Your task to perform on an android device: Empty the shopping cart on amazon. Search for "dell alienware" on amazon, select the first entry, add it to the cart, then select checkout. Image 0: 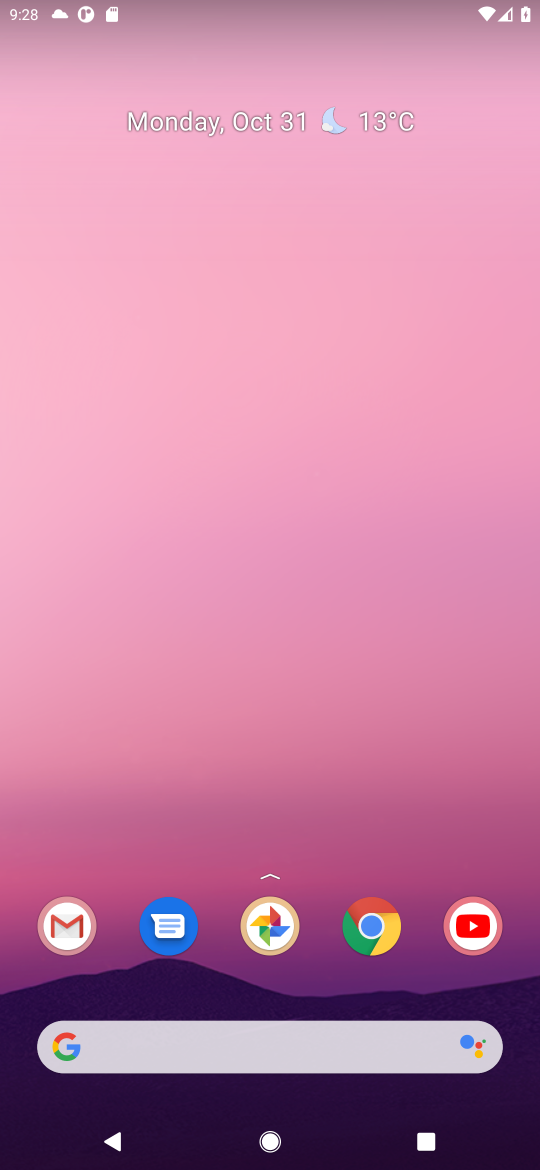
Step 0: click (377, 944)
Your task to perform on an android device: Empty the shopping cart on amazon. Search for "dell alienware" on amazon, select the first entry, add it to the cart, then select checkout. Image 1: 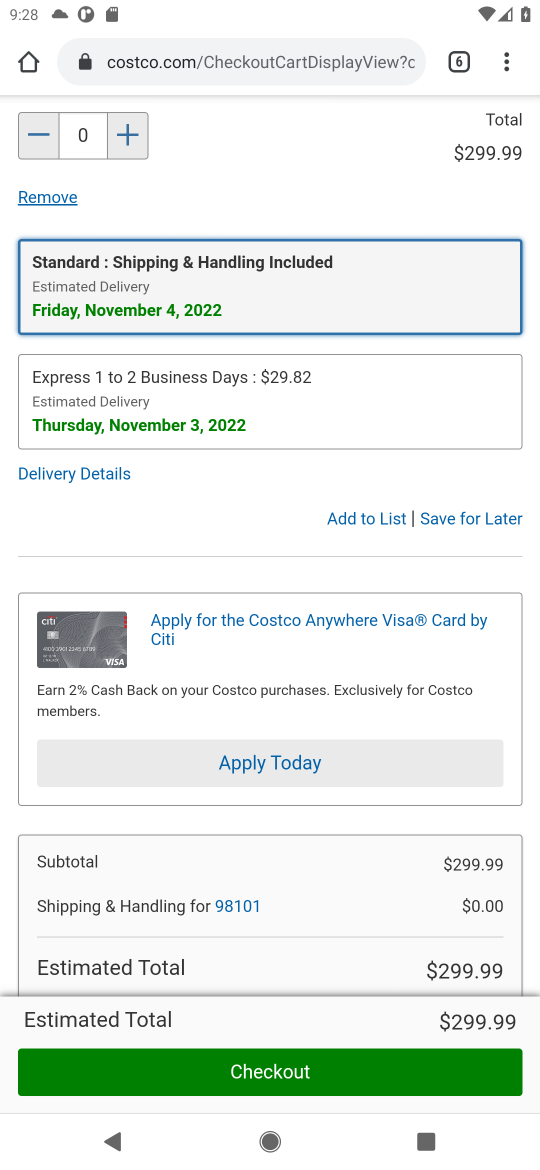
Step 1: click (462, 63)
Your task to perform on an android device: Empty the shopping cart on amazon. Search for "dell alienware" on amazon, select the first entry, add it to the cart, then select checkout. Image 2: 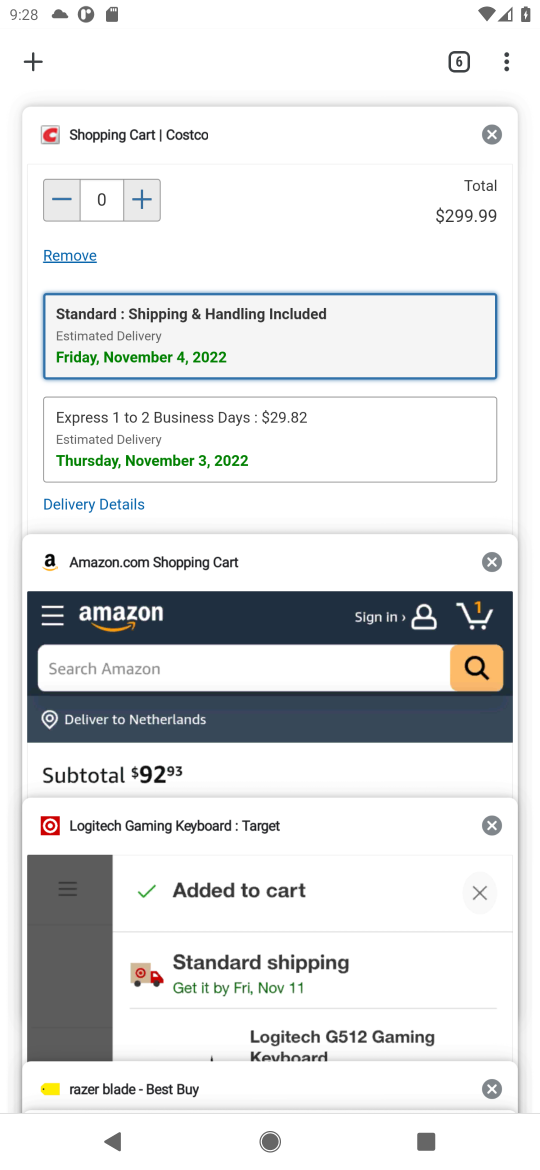
Step 2: click (189, 600)
Your task to perform on an android device: Empty the shopping cart on amazon. Search for "dell alienware" on amazon, select the first entry, add it to the cart, then select checkout. Image 3: 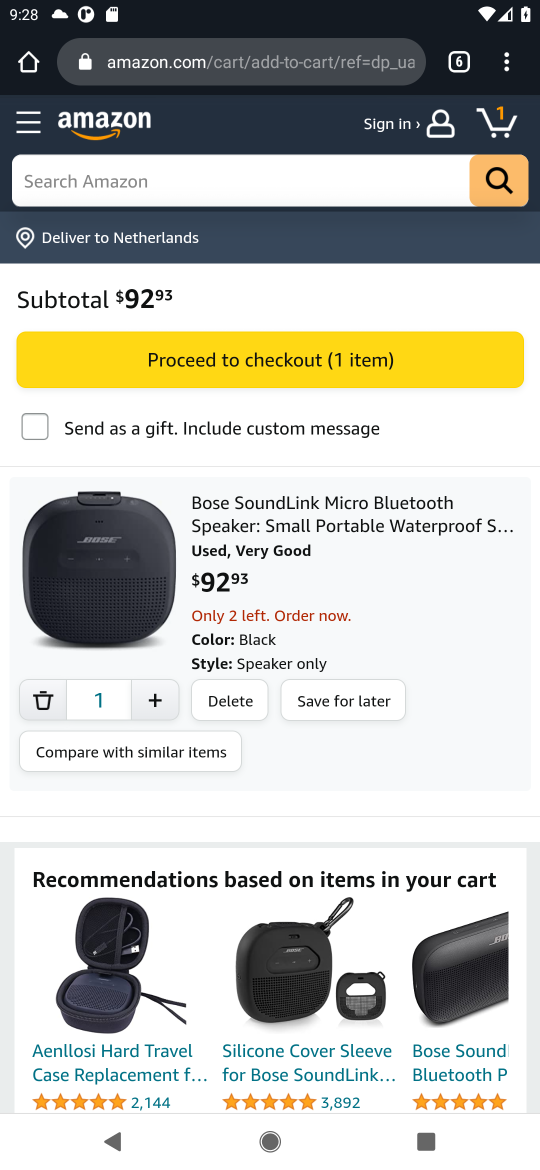
Step 3: click (498, 117)
Your task to perform on an android device: Empty the shopping cart on amazon. Search for "dell alienware" on amazon, select the first entry, add it to the cart, then select checkout. Image 4: 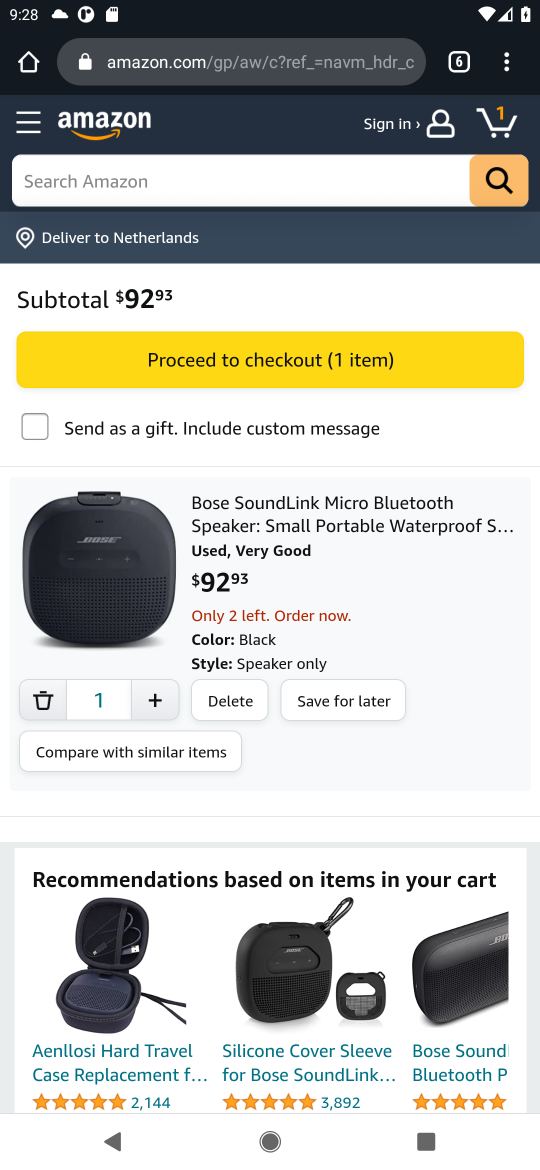
Step 4: click (498, 117)
Your task to perform on an android device: Empty the shopping cart on amazon. Search for "dell alienware" on amazon, select the first entry, add it to the cart, then select checkout. Image 5: 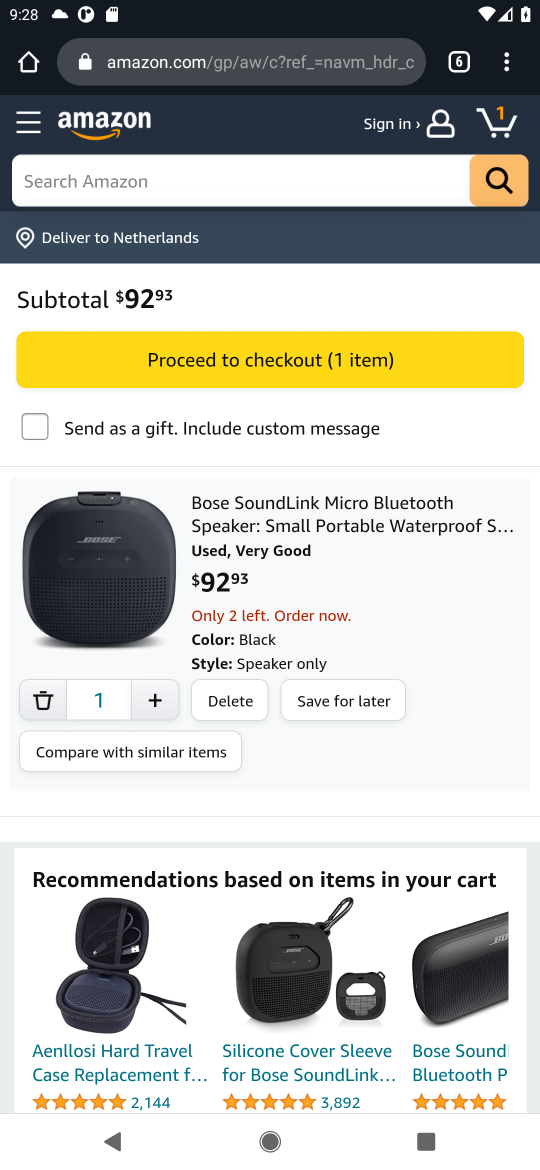
Step 5: click (40, 702)
Your task to perform on an android device: Empty the shopping cart on amazon. Search for "dell alienware" on amazon, select the first entry, add it to the cart, then select checkout. Image 6: 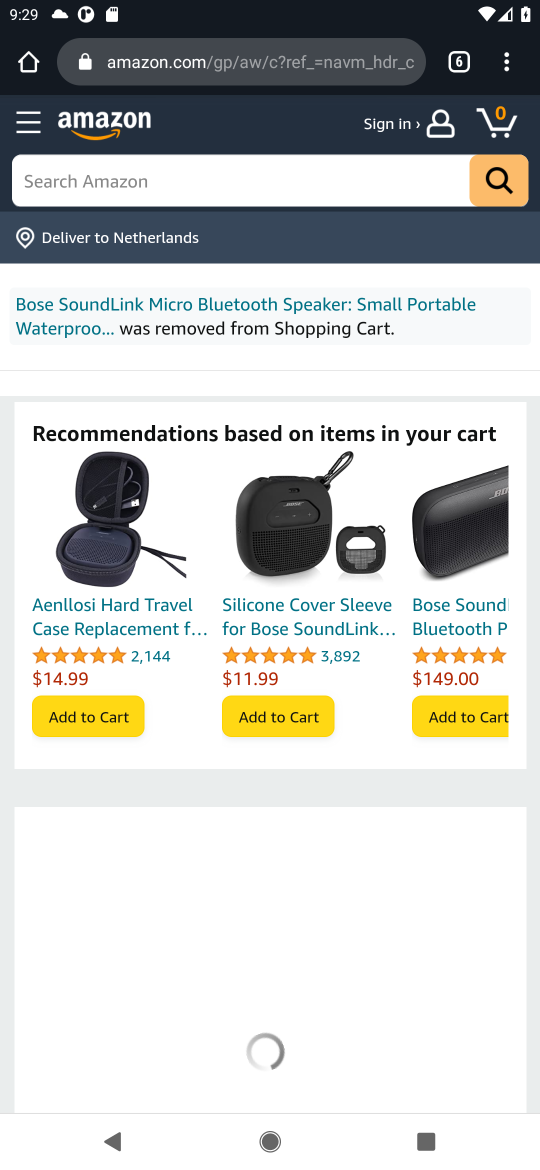
Step 6: click (136, 179)
Your task to perform on an android device: Empty the shopping cart on amazon. Search for "dell alienware" on amazon, select the first entry, add it to the cart, then select checkout. Image 7: 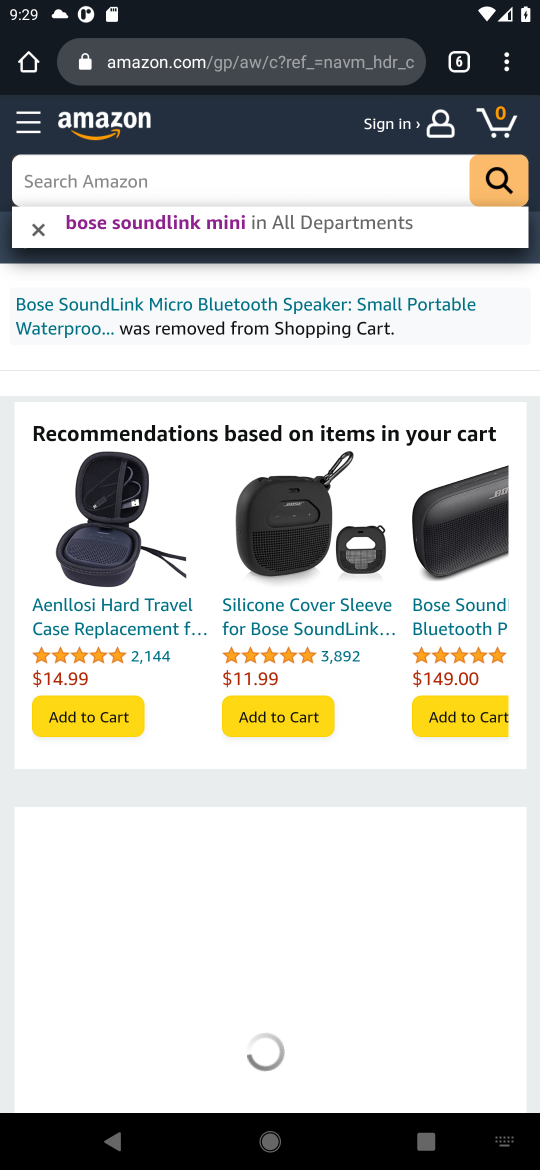
Step 7: type "dell alienware"
Your task to perform on an android device: Empty the shopping cart on amazon. Search for "dell alienware" on amazon, select the first entry, add it to the cart, then select checkout. Image 8: 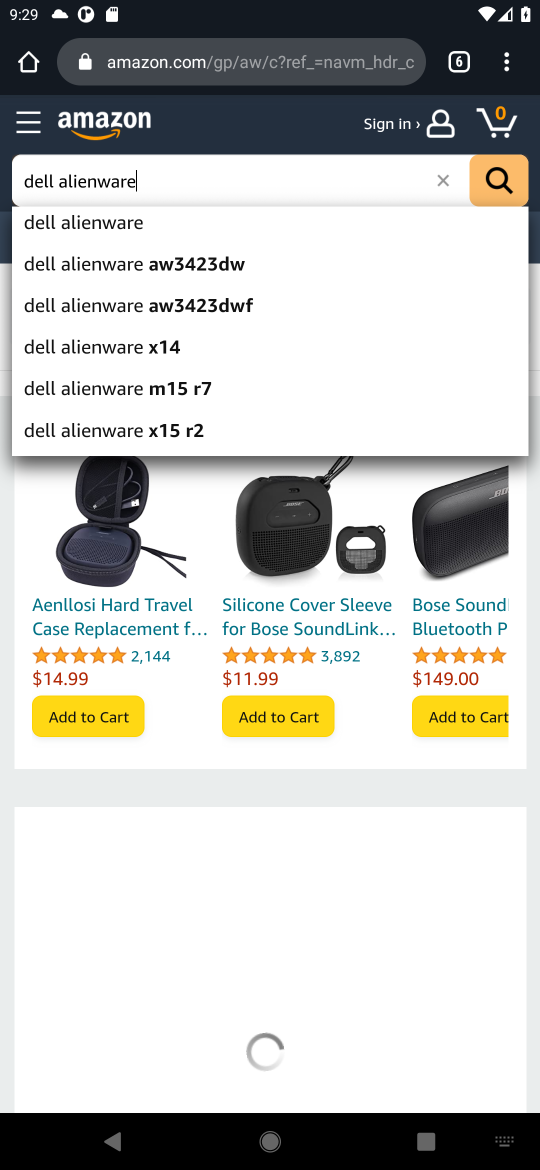
Step 8: click (75, 225)
Your task to perform on an android device: Empty the shopping cart on amazon. Search for "dell alienware" on amazon, select the first entry, add it to the cart, then select checkout. Image 9: 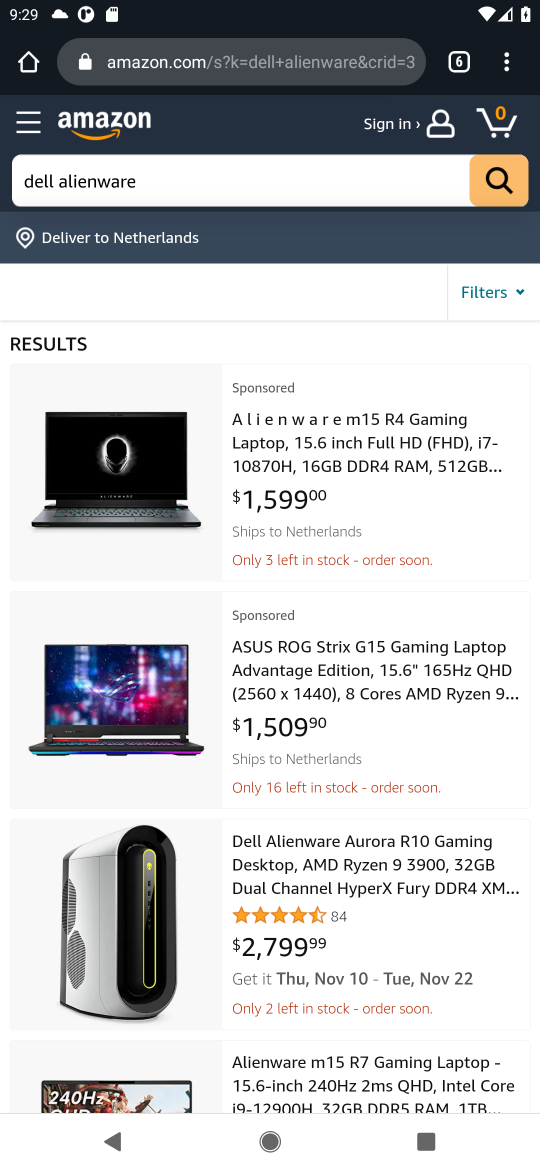
Step 9: click (296, 462)
Your task to perform on an android device: Empty the shopping cart on amazon. Search for "dell alienware" on amazon, select the first entry, add it to the cart, then select checkout. Image 10: 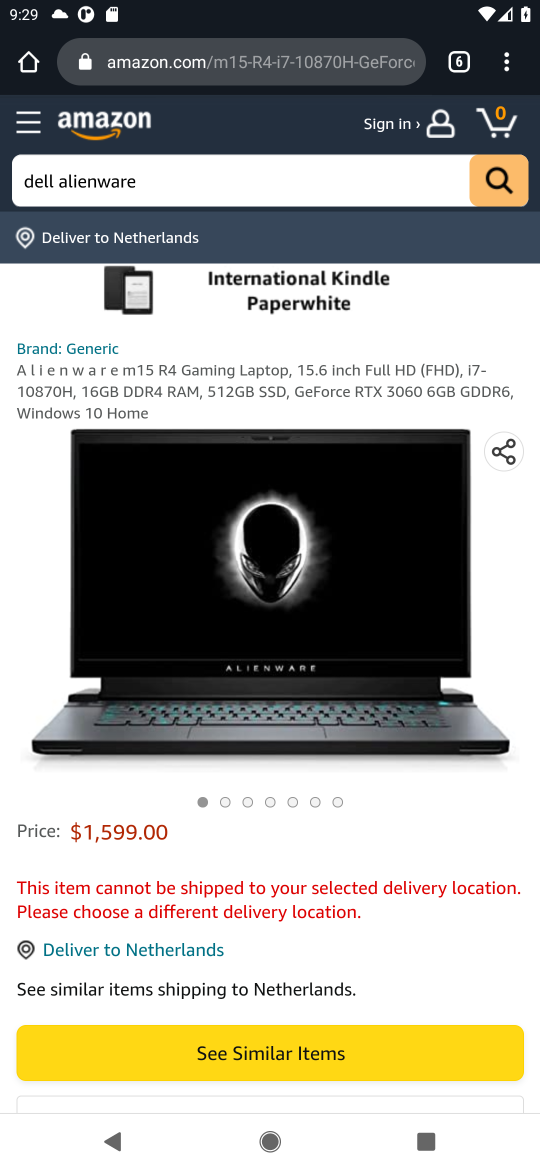
Step 10: click (304, 1058)
Your task to perform on an android device: Empty the shopping cart on amazon. Search for "dell alienware" on amazon, select the first entry, add it to the cart, then select checkout. Image 11: 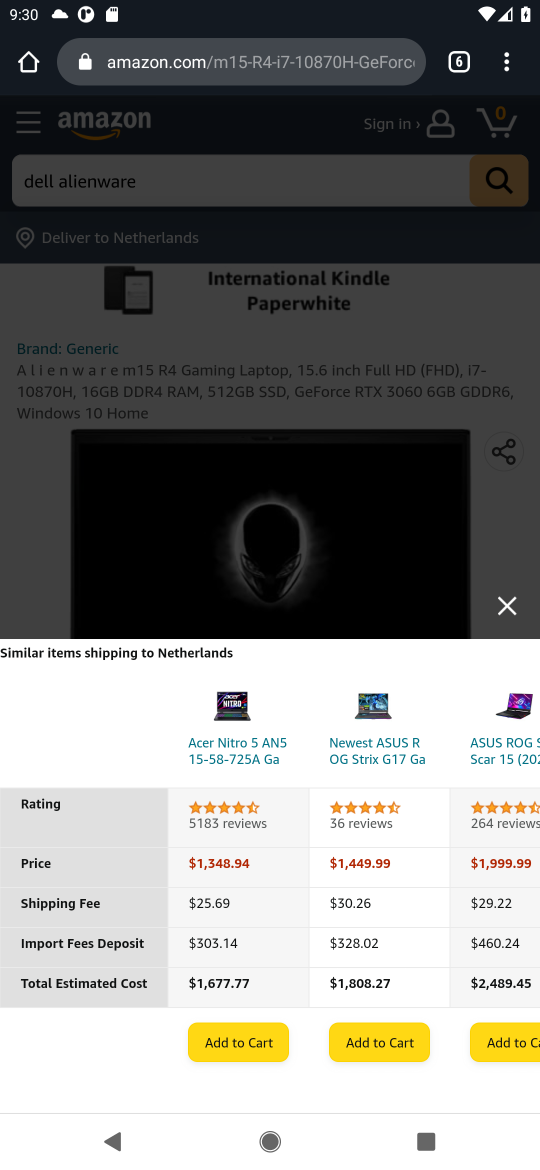
Step 11: click (224, 1038)
Your task to perform on an android device: Empty the shopping cart on amazon. Search for "dell alienware" on amazon, select the first entry, add it to the cart, then select checkout. Image 12: 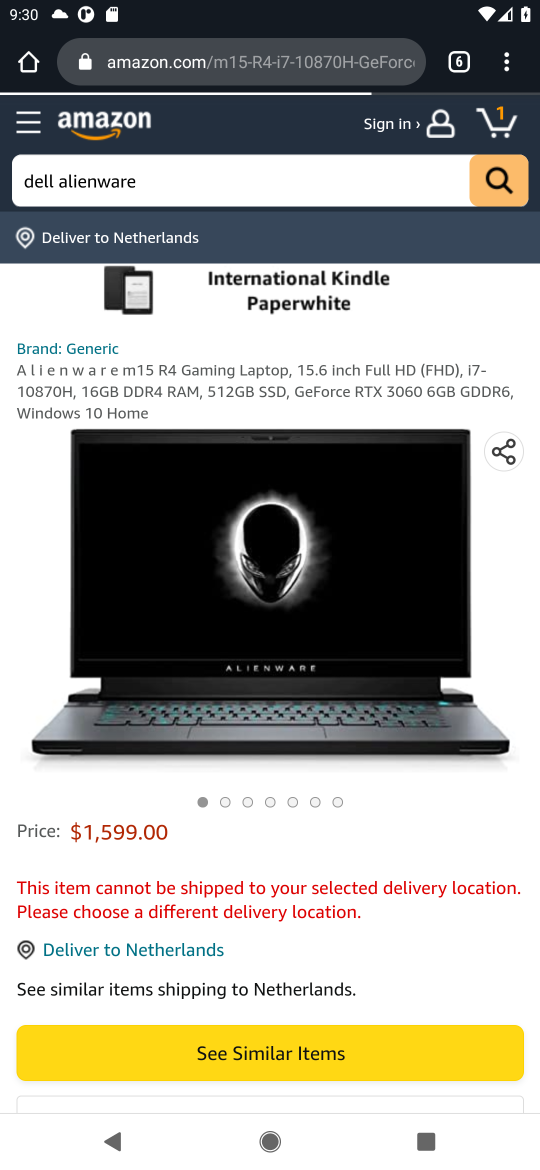
Step 12: task complete